Your task to perform on an android device: Go to accessibility settings Image 0: 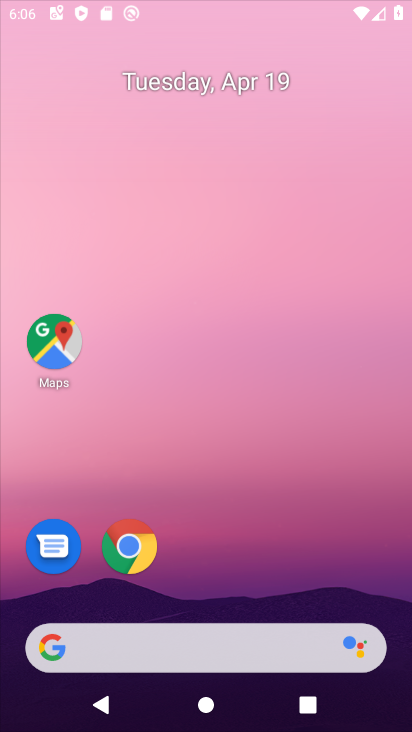
Step 0: click (289, 51)
Your task to perform on an android device: Go to accessibility settings Image 1: 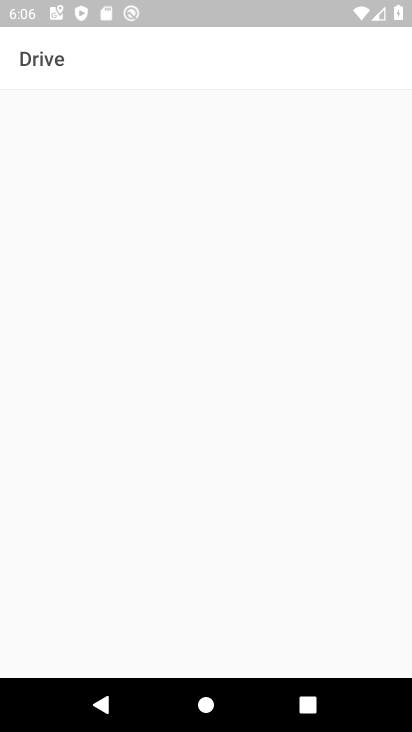
Step 1: press home button
Your task to perform on an android device: Go to accessibility settings Image 2: 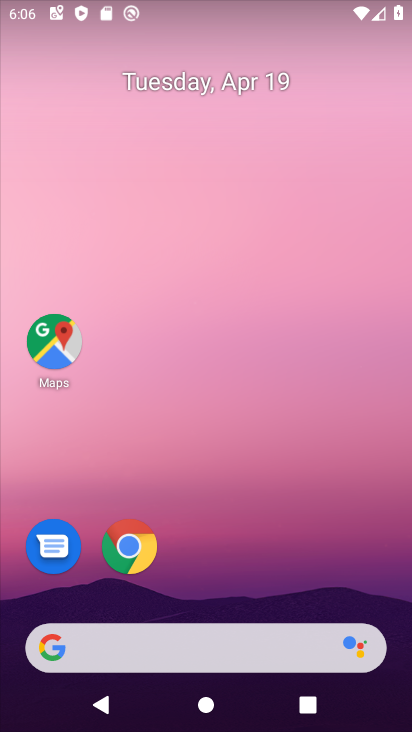
Step 2: drag from (265, 401) to (262, 38)
Your task to perform on an android device: Go to accessibility settings Image 3: 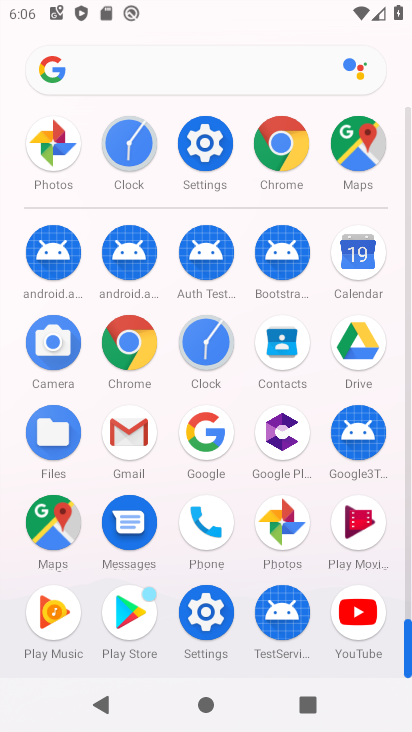
Step 3: click (211, 135)
Your task to perform on an android device: Go to accessibility settings Image 4: 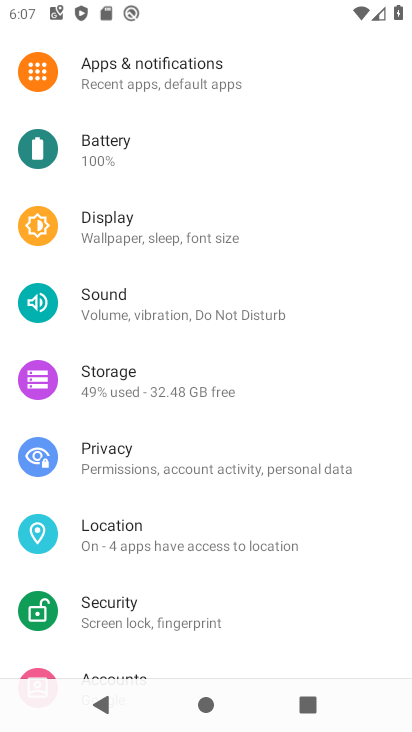
Step 4: drag from (203, 592) to (310, 164)
Your task to perform on an android device: Go to accessibility settings Image 5: 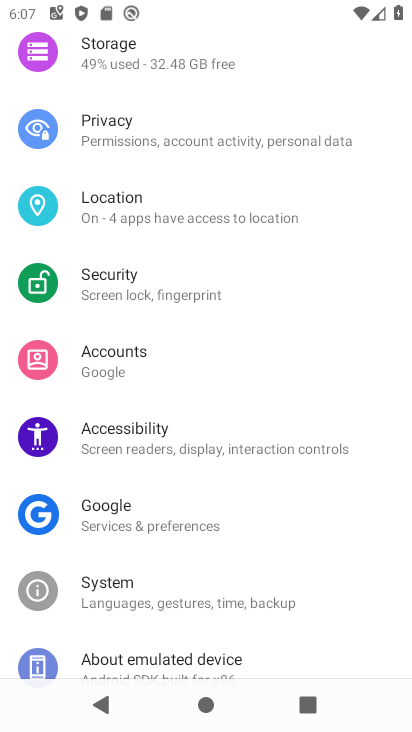
Step 5: click (176, 431)
Your task to perform on an android device: Go to accessibility settings Image 6: 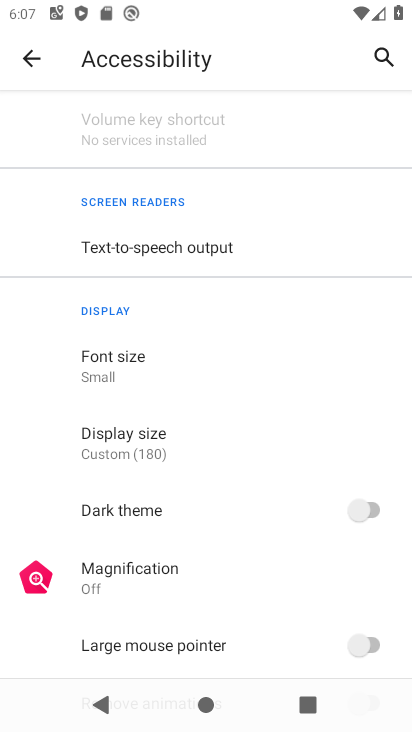
Step 6: task complete